Your task to perform on an android device: Turn off the flashlight Image 0: 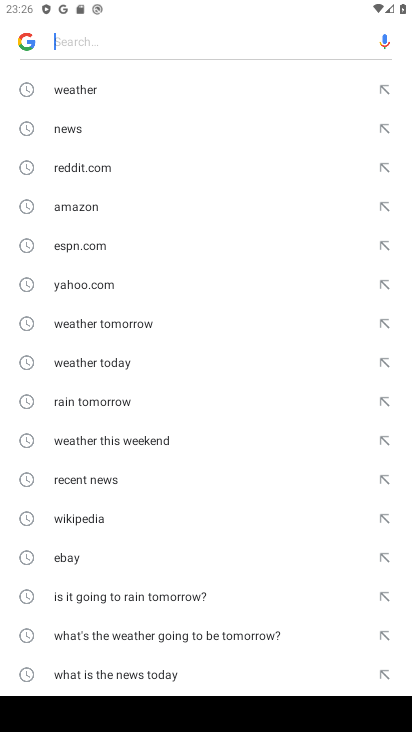
Step 0: press home button
Your task to perform on an android device: Turn off the flashlight Image 1: 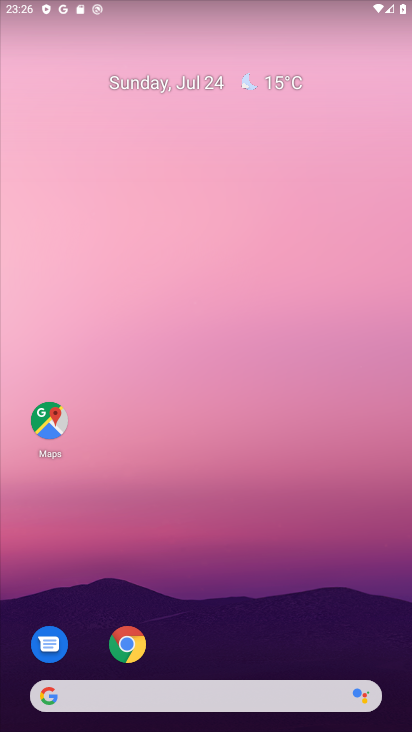
Step 1: click (211, 686)
Your task to perform on an android device: Turn off the flashlight Image 2: 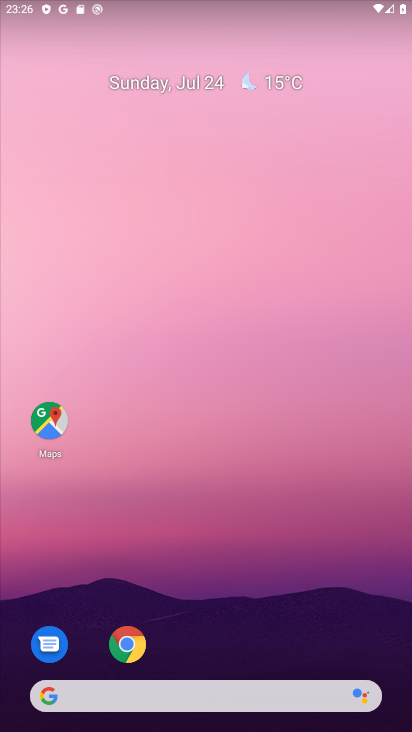
Step 2: click (171, 309)
Your task to perform on an android device: Turn off the flashlight Image 3: 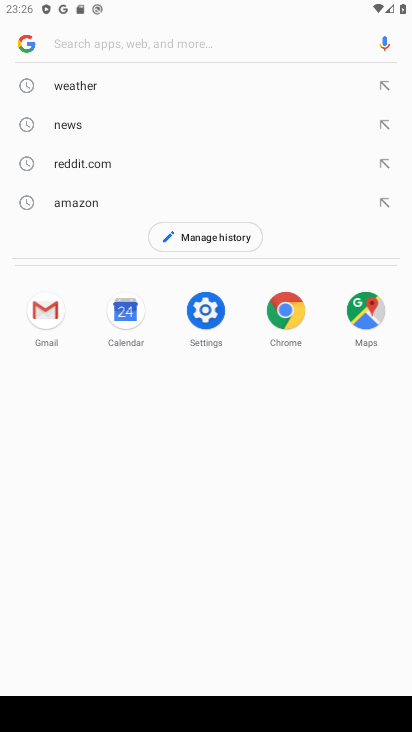
Step 3: press home button
Your task to perform on an android device: Turn off the flashlight Image 4: 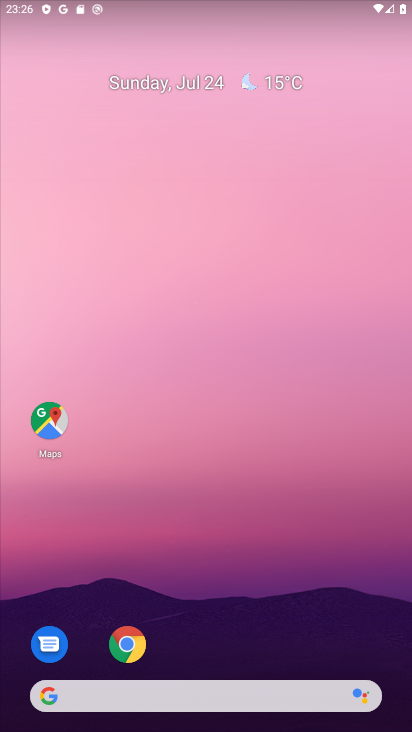
Step 4: drag from (230, 728) to (242, 110)
Your task to perform on an android device: Turn off the flashlight Image 5: 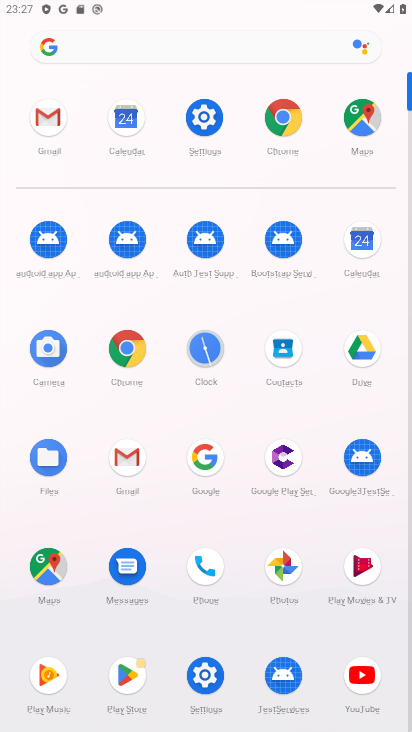
Step 5: click (193, 122)
Your task to perform on an android device: Turn off the flashlight Image 6: 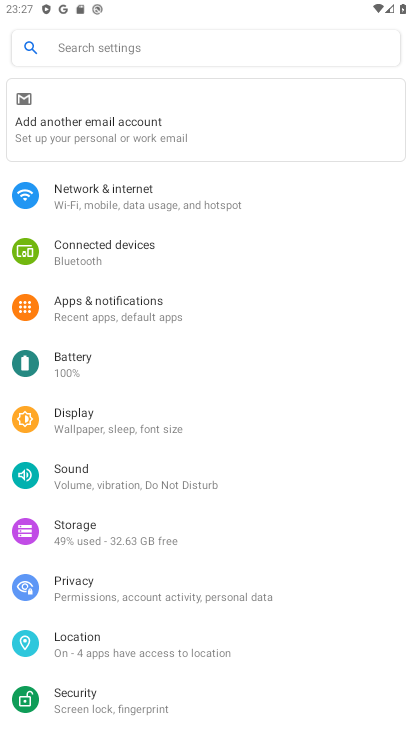
Step 6: task complete